Your task to perform on an android device: Search for seafood restaurants on Google Maps Image 0: 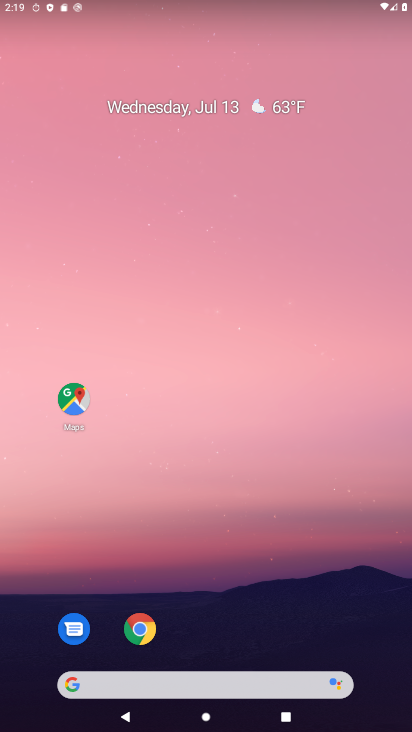
Step 0: drag from (175, 632) to (244, 142)
Your task to perform on an android device: Search for seafood restaurants on Google Maps Image 1: 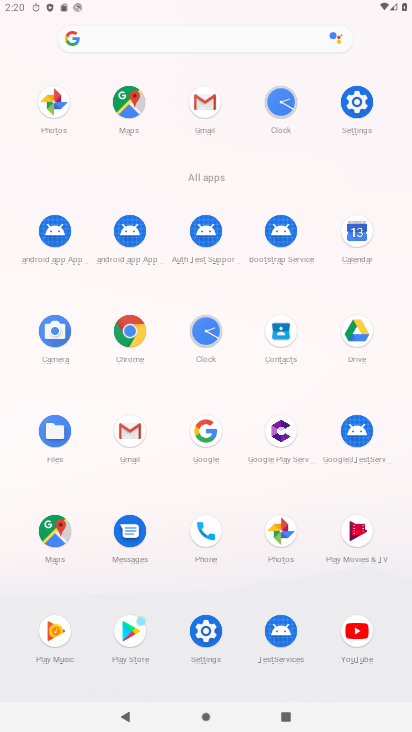
Step 1: click (56, 530)
Your task to perform on an android device: Search for seafood restaurants on Google Maps Image 2: 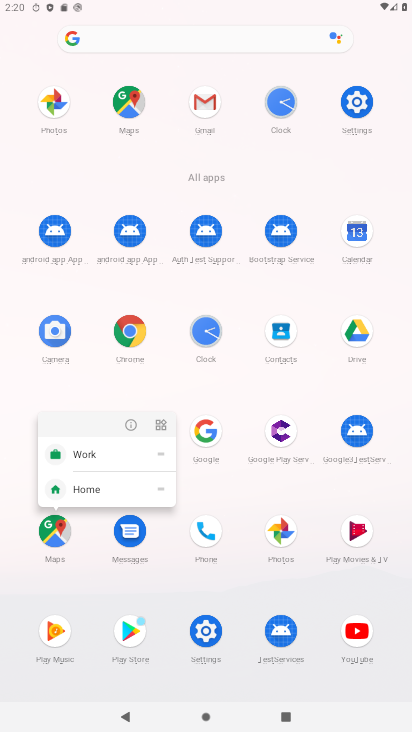
Step 2: click (126, 423)
Your task to perform on an android device: Search for seafood restaurants on Google Maps Image 3: 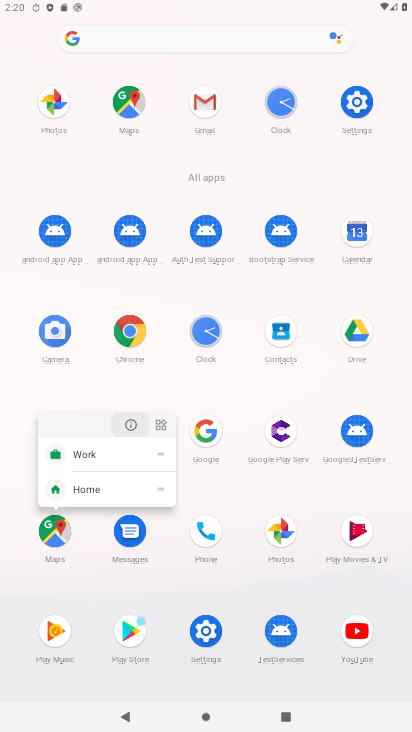
Step 3: click (126, 423)
Your task to perform on an android device: Search for seafood restaurants on Google Maps Image 4: 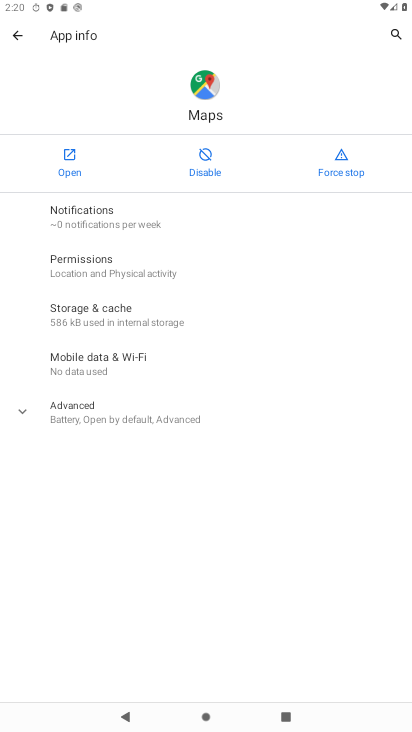
Step 4: click (74, 165)
Your task to perform on an android device: Search for seafood restaurants on Google Maps Image 5: 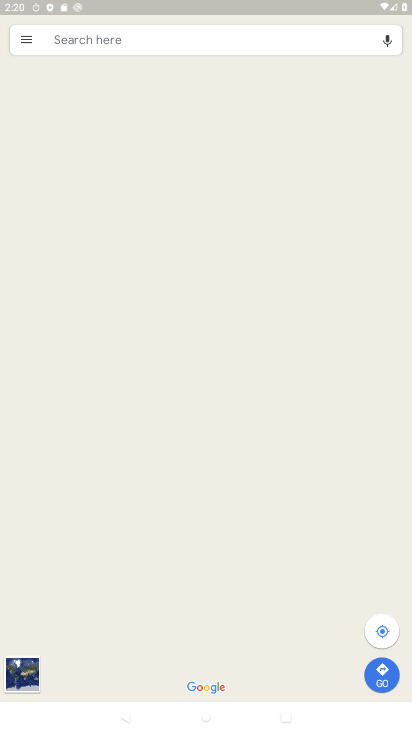
Step 5: click (125, 32)
Your task to perform on an android device: Search for seafood restaurants on Google Maps Image 6: 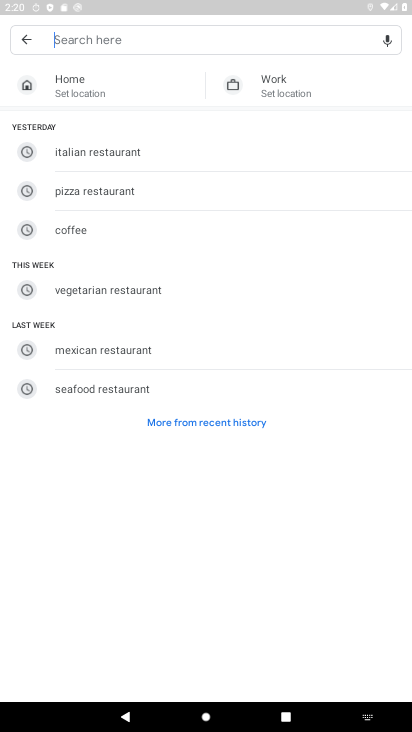
Step 6: click (66, 385)
Your task to perform on an android device: Search for seafood restaurants on Google Maps Image 7: 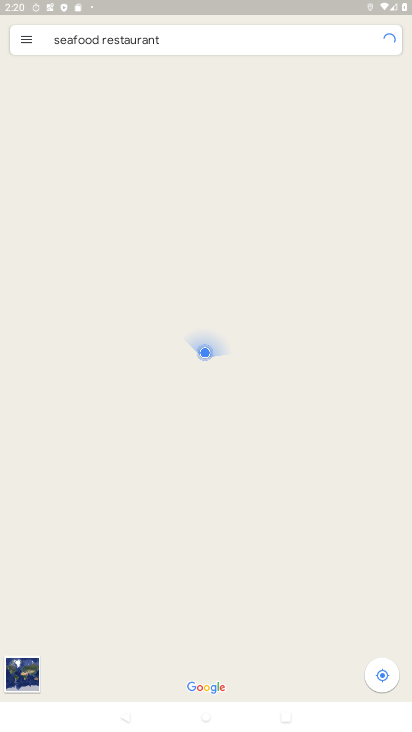
Step 7: task complete